Your task to perform on an android device: turn off sleep mode Image 0: 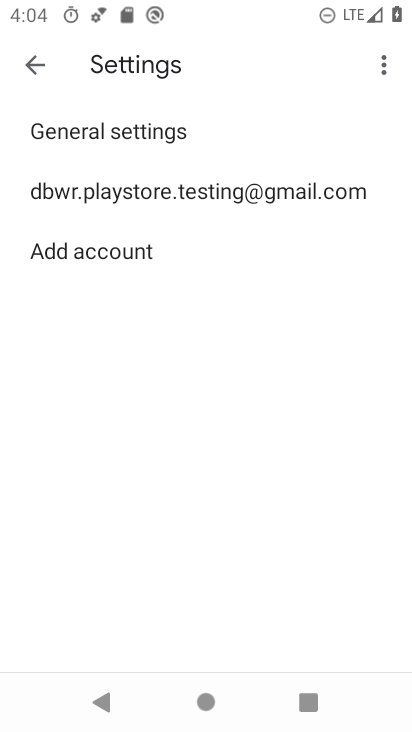
Step 0: press home button
Your task to perform on an android device: turn off sleep mode Image 1: 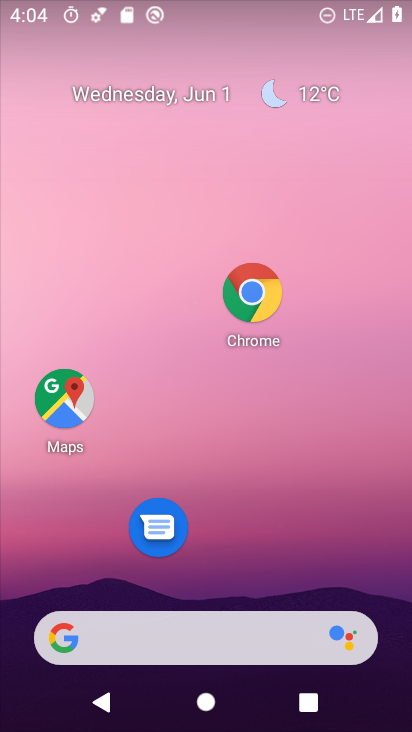
Step 1: drag from (352, 606) to (152, 35)
Your task to perform on an android device: turn off sleep mode Image 2: 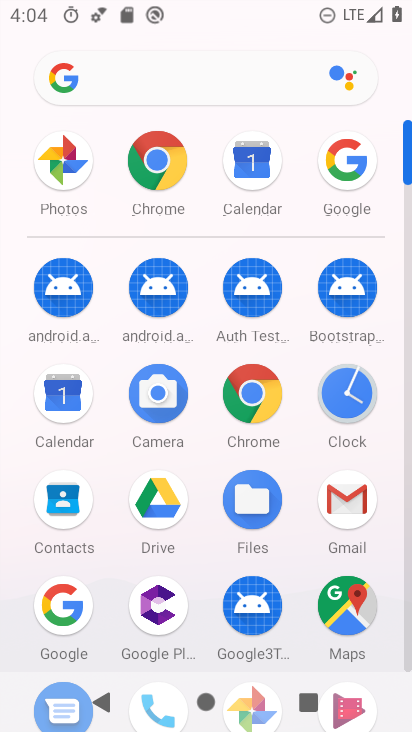
Step 2: drag from (201, 507) to (200, 164)
Your task to perform on an android device: turn off sleep mode Image 3: 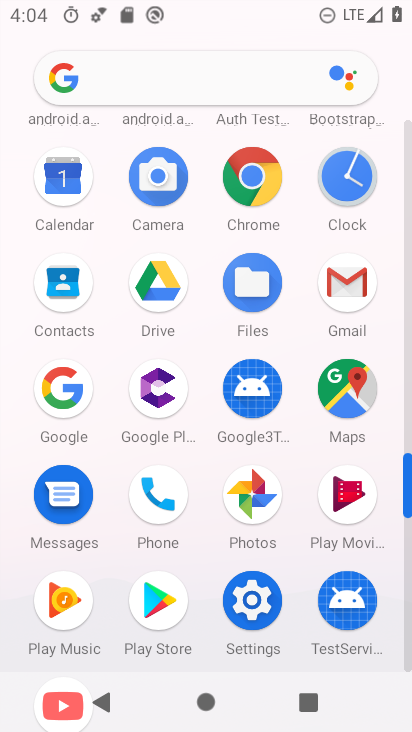
Step 3: click (249, 633)
Your task to perform on an android device: turn off sleep mode Image 4: 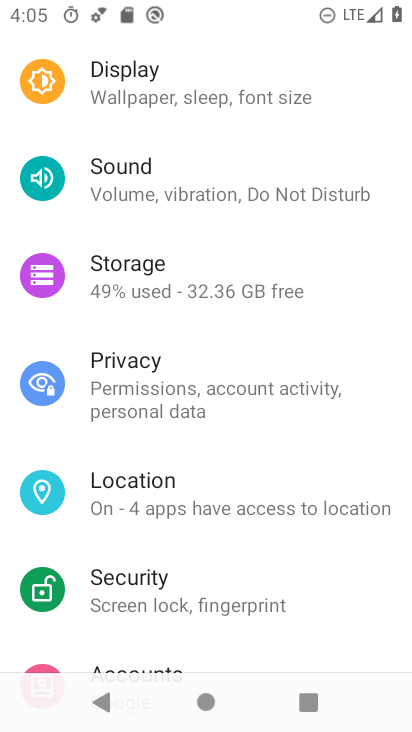
Step 4: click (272, 106)
Your task to perform on an android device: turn off sleep mode Image 5: 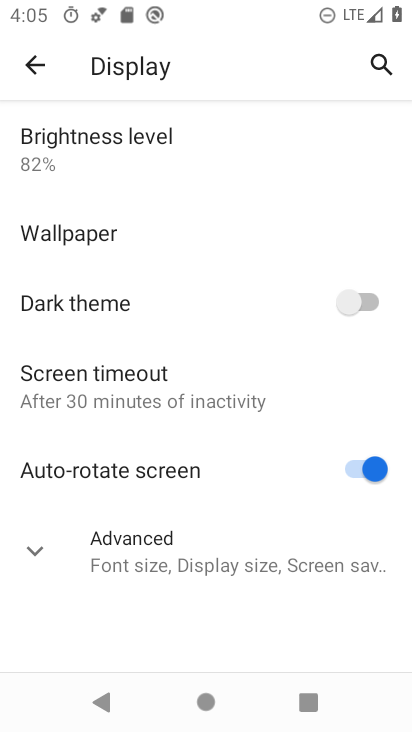
Step 5: task complete